Your task to perform on an android device: clear history in the chrome app Image 0: 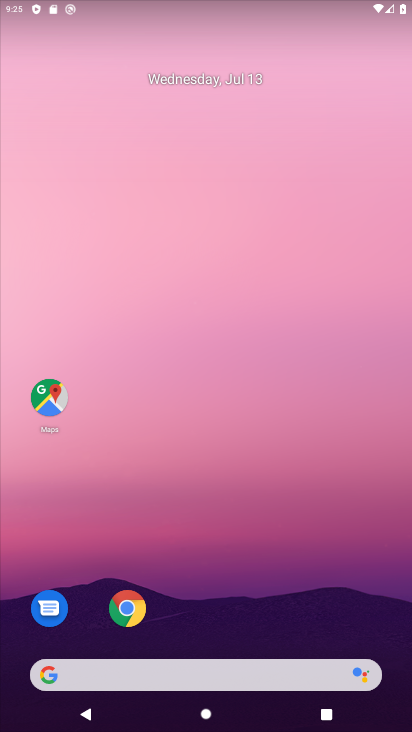
Step 0: click (126, 614)
Your task to perform on an android device: clear history in the chrome app Image 1: 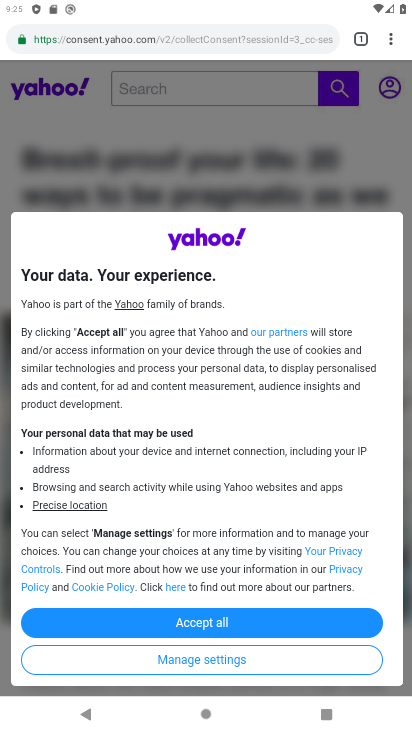
Step 1: press home button
Your task to perform on an android device: clear history in the chrome app Image 2: 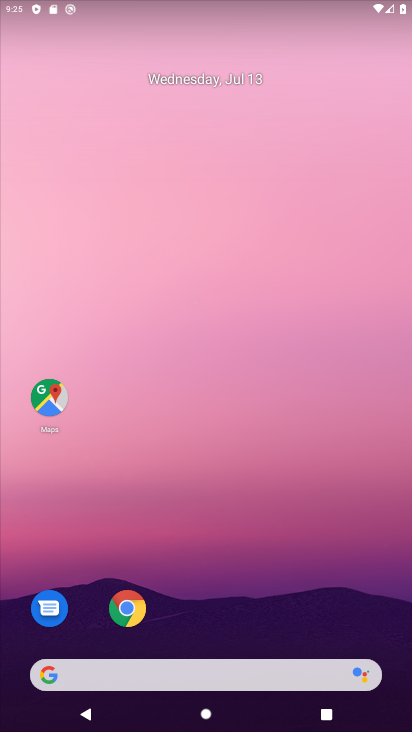
Step 2: click (104, 601)
Your task to perform on an android device: clear history in the chrome app Image 3: 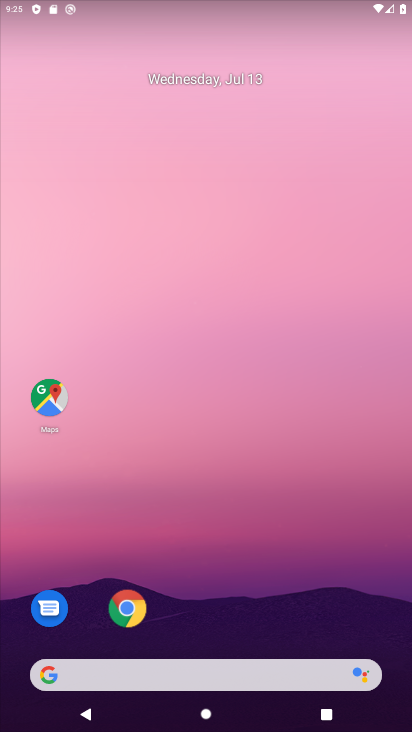
Step 3: click (141, 617)
Your task to perform on an android device: clear history in the chrome app Image 4: 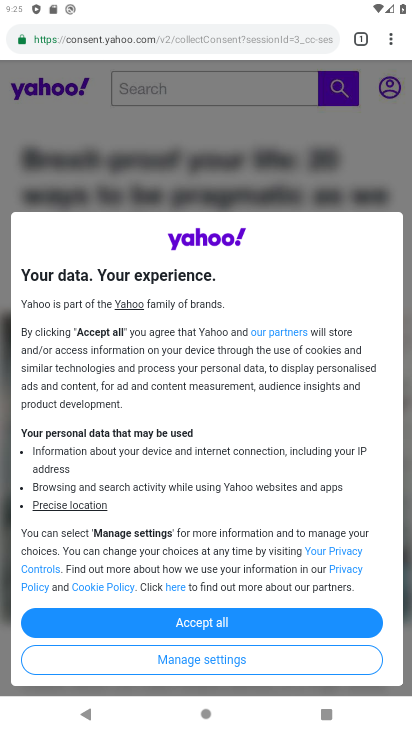
Step 4: click (385, 39)
Your task to perform on an android device: clear history in the chrome app Image 5: 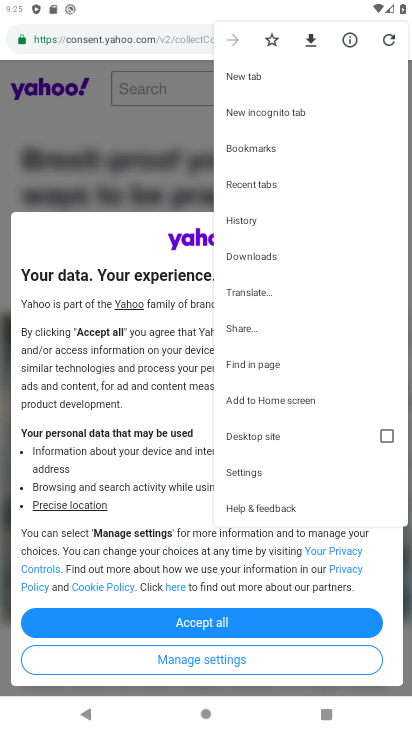
Step 5: click (237, 225)
Your task to perform on an android device: clear history in the chrome app Image 6: 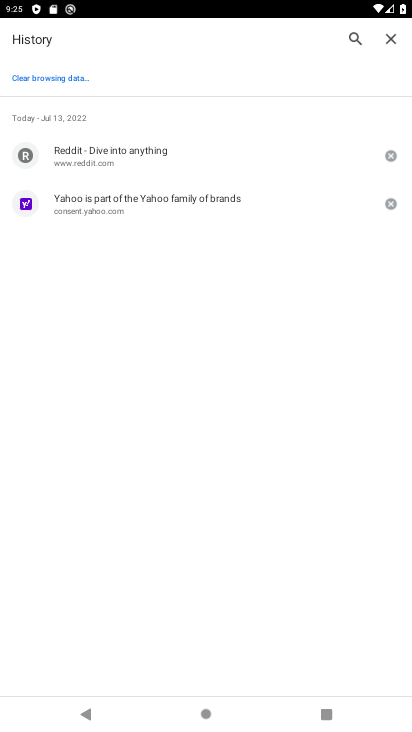
Step 6: click (37, 71)
Your task to perform on an android device: clear history in the chrome app Image 7: 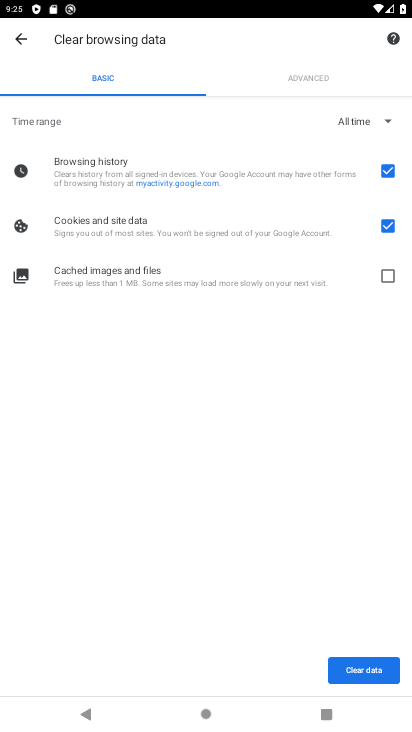
Step 7: click (403, 230)
Your task to perform on an android device: clear history in the chrome app Image 8: 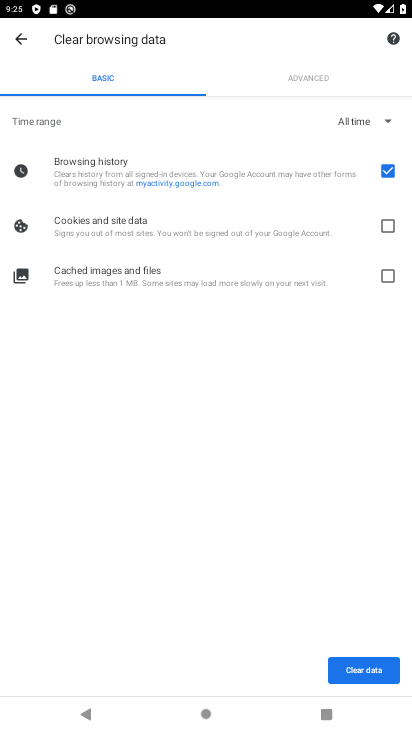
Step 8: click (370, 676)
Your task to perform on an android device: clear history in the chrome app Image 9: 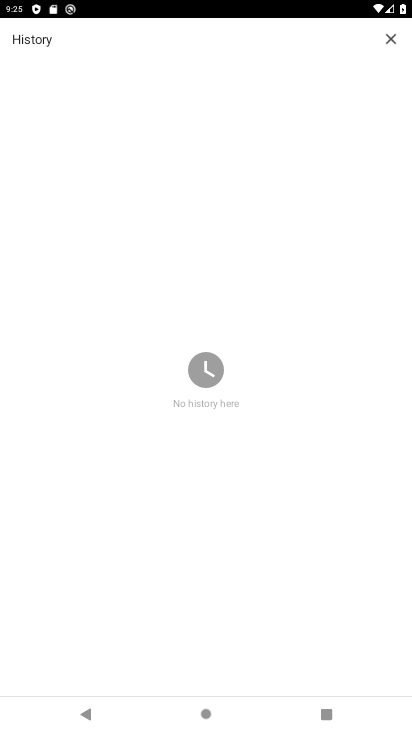
Step 9: task complete